Your task to perform on an android device: Open calendar and show me the first week of next month Image 0: 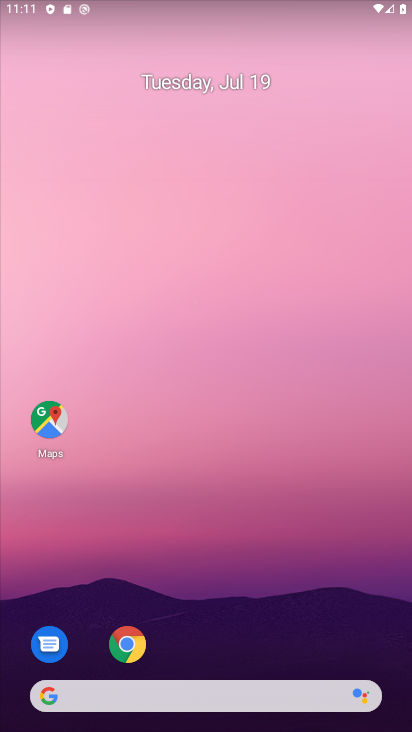
Step 0: drag from (198, 644) to (298, 54)
Your task to perform on an android device: Open calendar and show me the first week of next month Image 1: 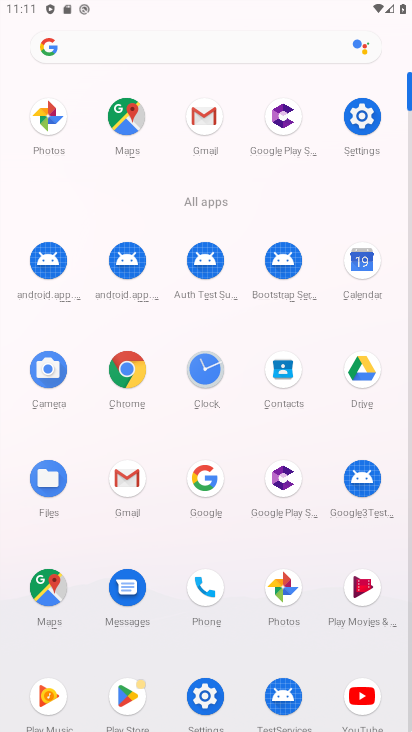
Step 1: click (359, 266)
Your task to perform on an android device: Open calendar and show me the first week of next month Image 2: 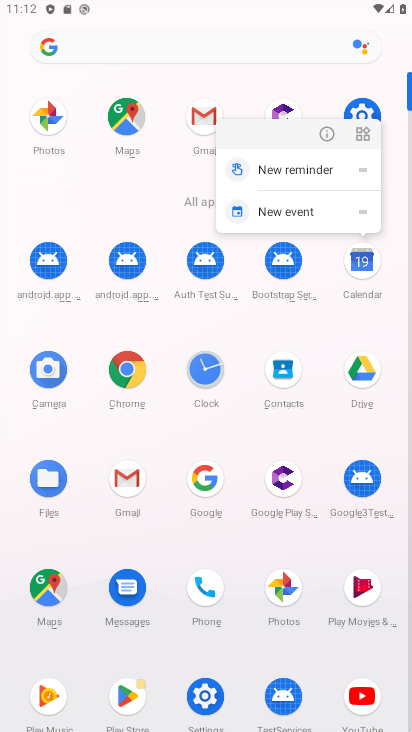
Step 2: click (326, 130)
Your task to perform on an android device: Open calendar and show me the first week of next month Image 3: 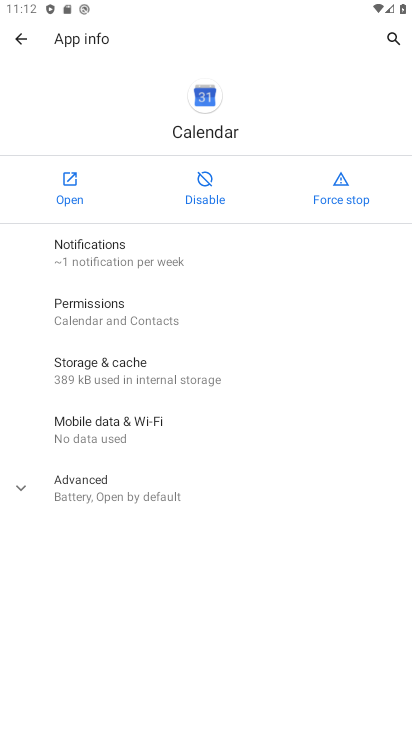
Step 3: click (84, 178)
Your task to perform on an android device: Open calendar and show me the first week of next month Image 4: 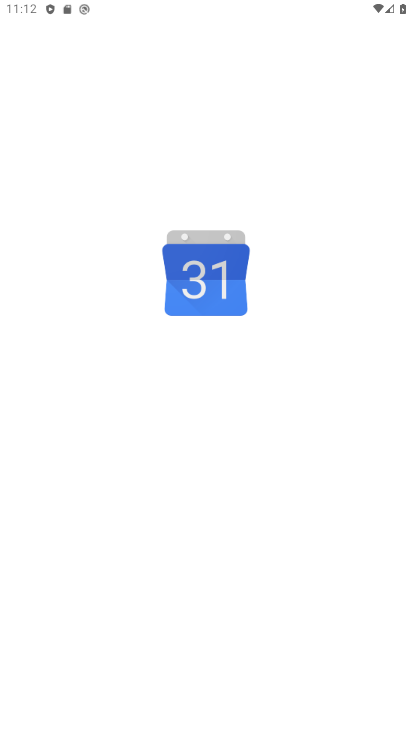
Step 4: drag from (207, 532) to (292, 32)
Your task to perform on an android device: Open calendar and show me the first week of next month Image 5: 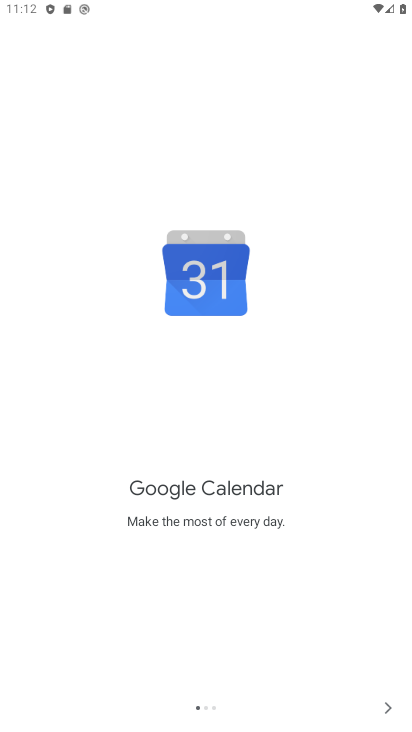
Step 5: drag from (252, 474) to (279, 213)
Your task to perform on an android device: Open calendar and show me the first week of next month Image 6: 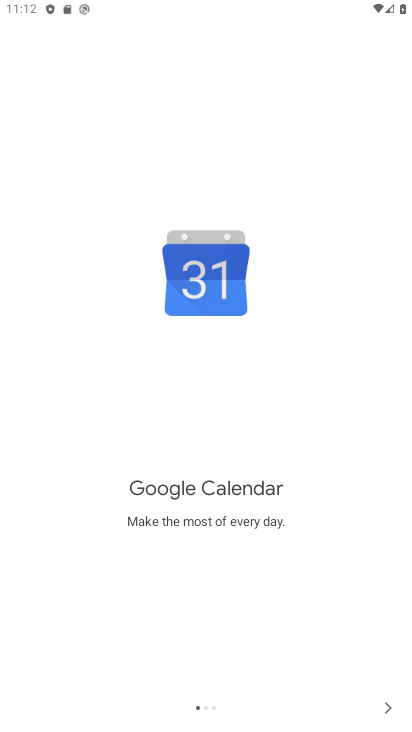
Step 6: click (391, 711)
Your task to perform on an android device: Open calendar and show me the first week of next month Image 7: 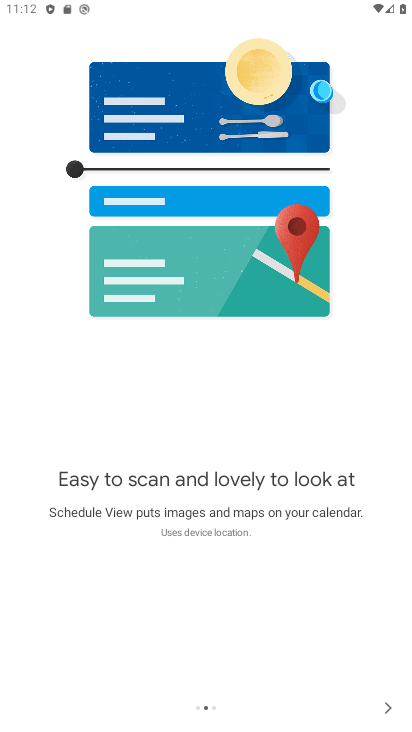
Step 7: click (381, 701)
Your task to perform on an android device: Open calendar and show me the first week of next month Image 8: 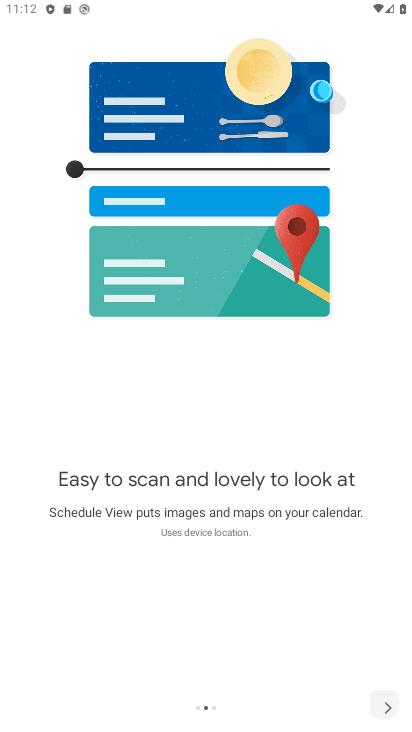
Step 8: click (382, 702)
Your task to perform on an android device: Open calendar and show me the first week of next month Image 9: 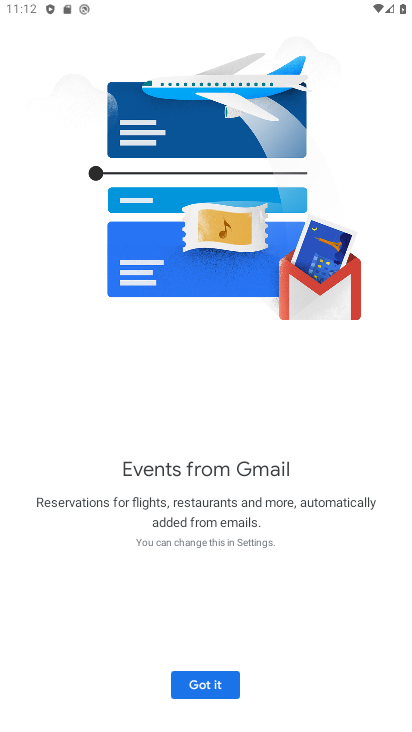
Step 9: click (389, 701)
Your task to perform on an android device: Open calendar and show me the first week of next month Image 10: 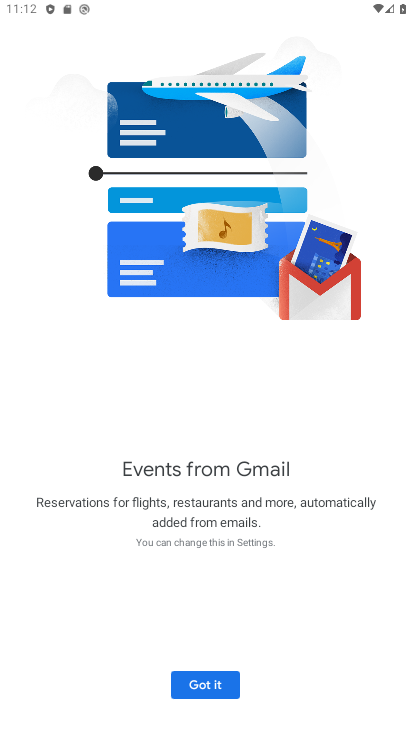
Step 10: click (210, 682)
Your task to perform on an android device: Open calendar and show me the first week of next month Image 11: 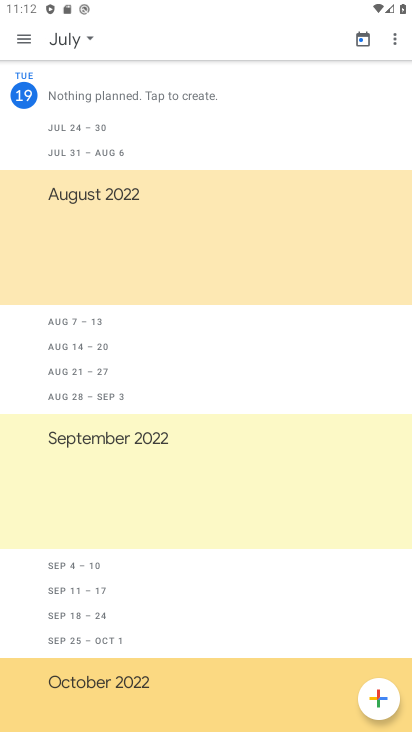
Step 11: drag from (364, 629) to (184, 179)
Your task to perform on an android device: Open calendar and show me the first week of next month Image 12: 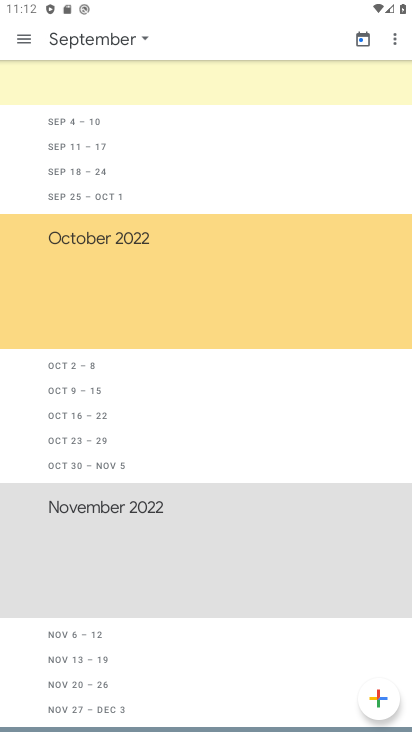
Step 12: click (113, 28)
Your task to perform on an android device: Open calendar and show me the first week of next month Image 13: 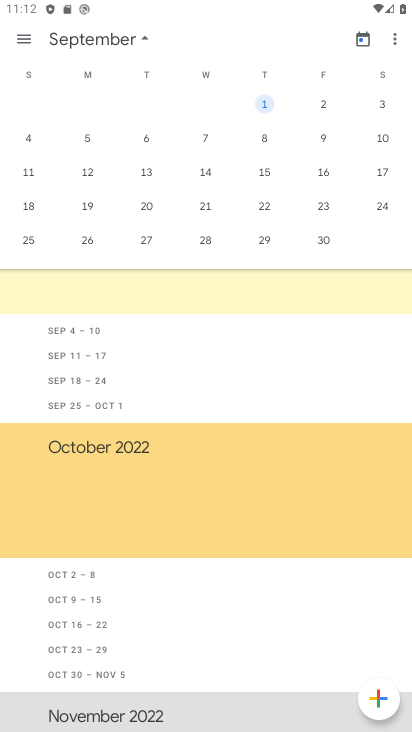
Step 13: click (369, 38)
Your task to perform on an android device: Open calendar and show me the first week of next month Image 14: 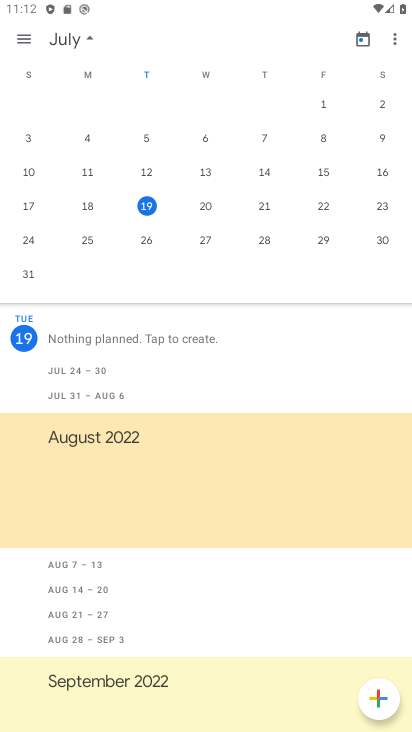
Step 14: drag from (300, 212) to (40, 209)
Your task to perform on an android device: Open calendar and show me the first week of next month Image 15: 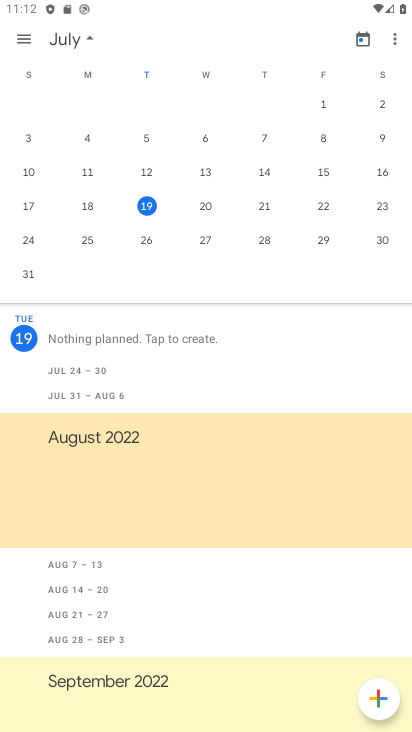
Step 15: drag from (363, 204) to (3, 194)
Your task to perform on an android device: Open calendar and show me the first week of next month Image 16: 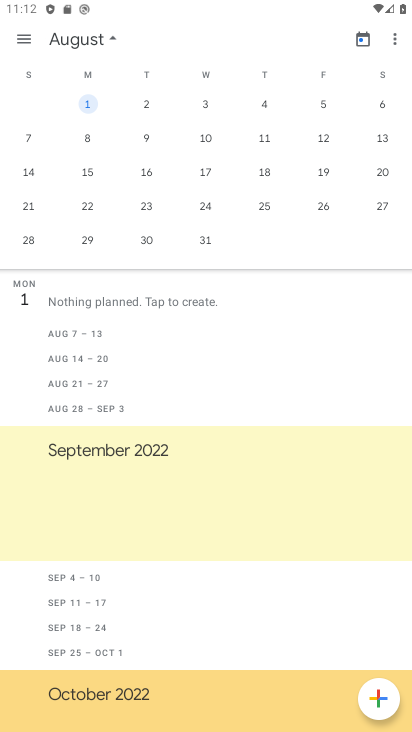
Step 16: click (316, 106)
Your task to perform on an android device: Open calendar and show me the first week of next month Image 17: 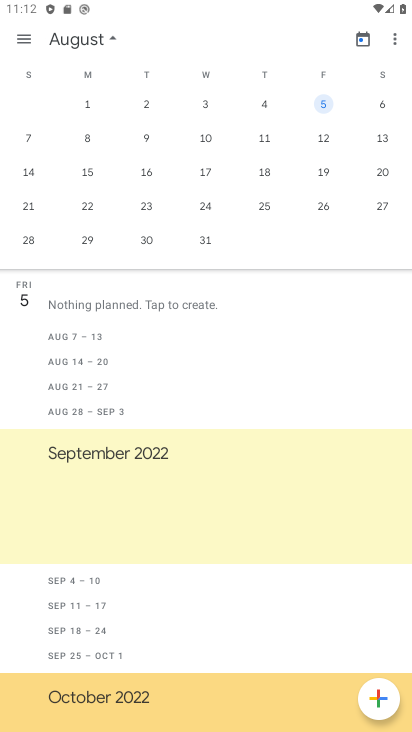
Step 17: task complete